Your task to perform on an android device: remove spam from my inbox in the gmail app Image 0: 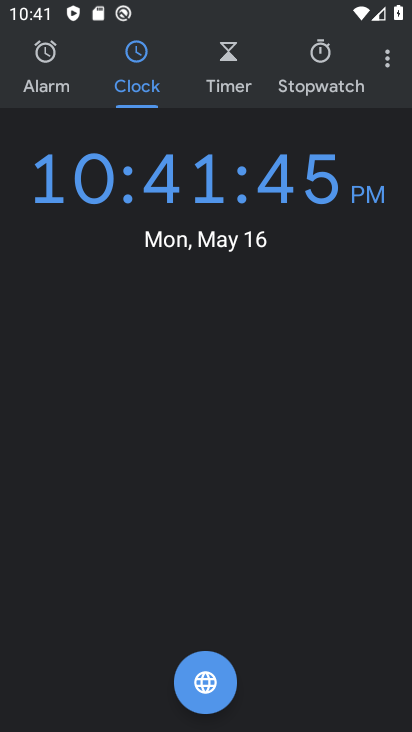
Step 0: press home button
Your task to perform on an android device: remove spam from my inbox in the gmail app Image 1: 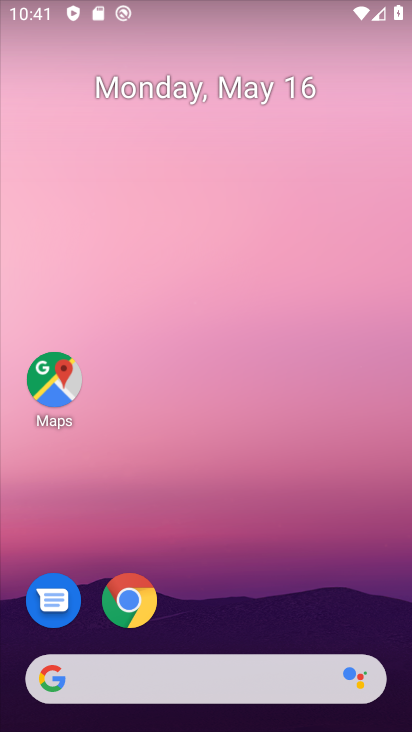
Step 1: drag from (181, 634) to (186, 295)
Your task to perform on an android device: remove spam from my inbox in the gmail app Image 2: 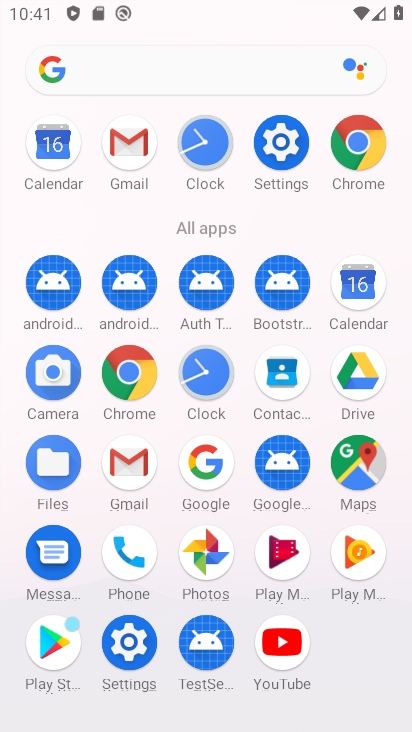
Step 2: click (124, 468)
Your task to perform on an android device: remove spam from my inbox in the gmail app Image 3: 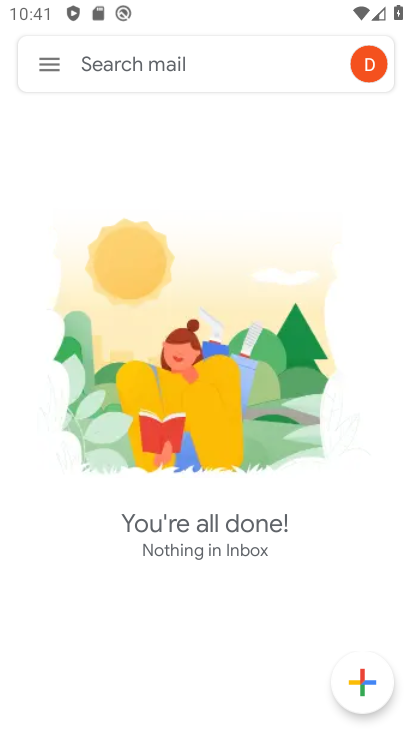
Step 3: click (34, 64)
Your task to perform on an android device: remove spam from my inbox in the gmail app Image 4: 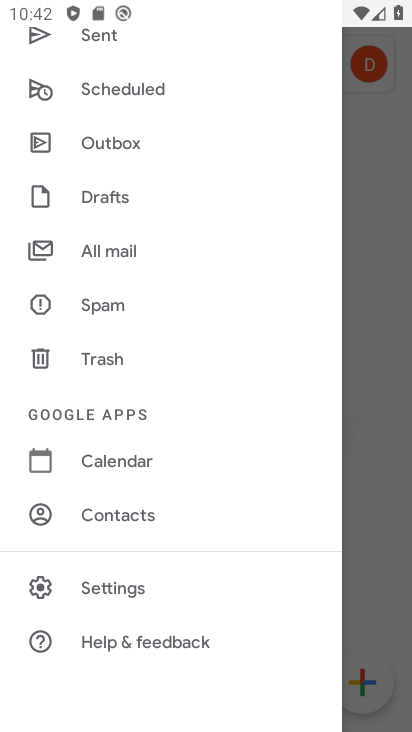
Step 4: click (127, 312)
Your task to perform on an android device: remove spam from my inbox in the gmail app Image 5: 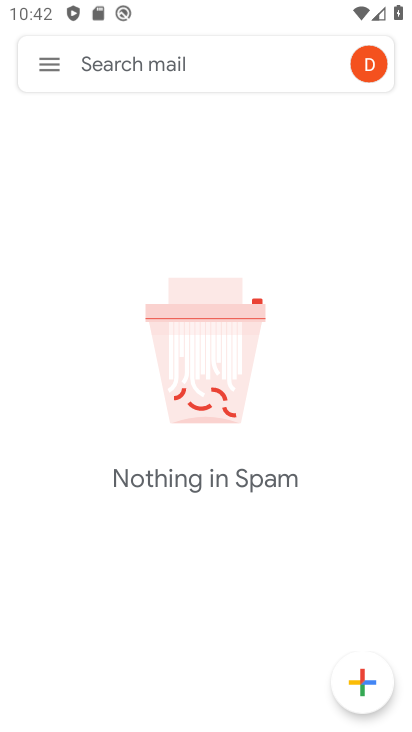
Step 5: task complete